Your task to perform on an android device: choose inbox layout in the gmail app Image 0: 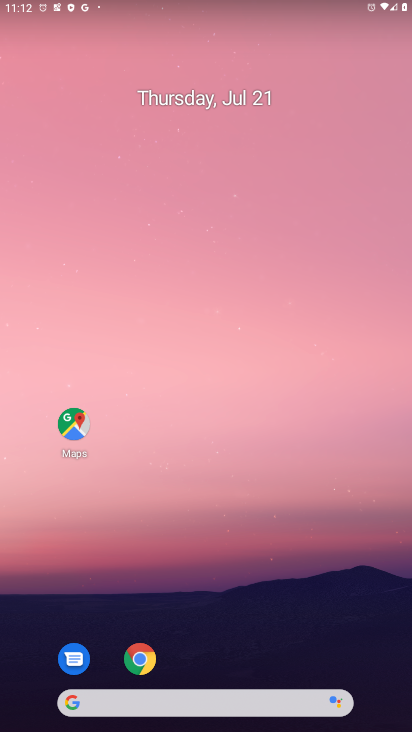
Step 0: drag from (177, 702) to (187, 161)
Your task to perform on an android device: choose inbox layout in the gmail app Image 1: 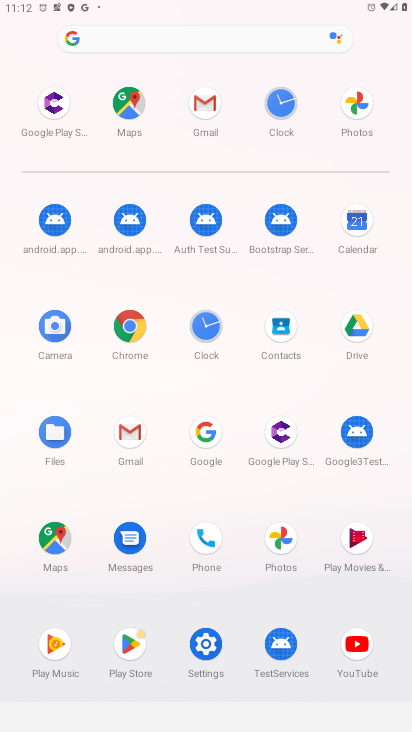
Step 1: click (204, 102)
Your task to perform on an android device: choose inbox layout in the gmail app Image 2: 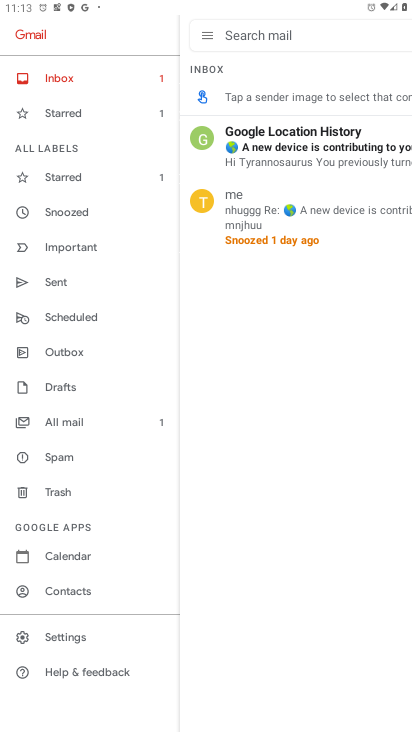
Step 2: click (72, 639)
Your task to perform on an android device: choose inbox layout in the gmail app Image 3: 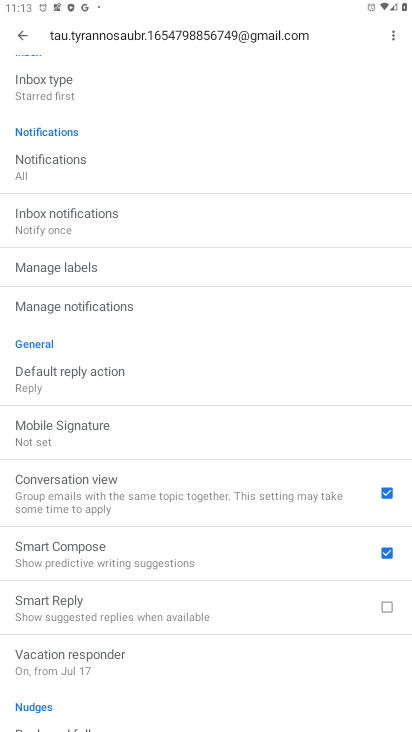
Step 3: click (54, 99)
Your task to perform on an android device: choose inbox layout in the gmail app Image 4: 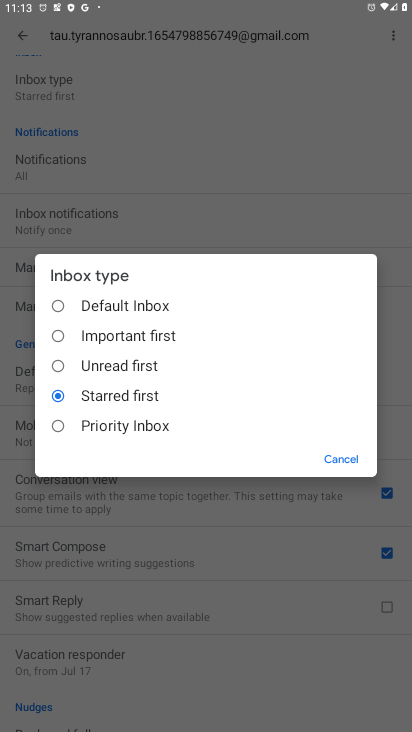
Step 4: click (101, 367)
Your task to perform on an android device: choose inbox layout in the gmail app Image 5: 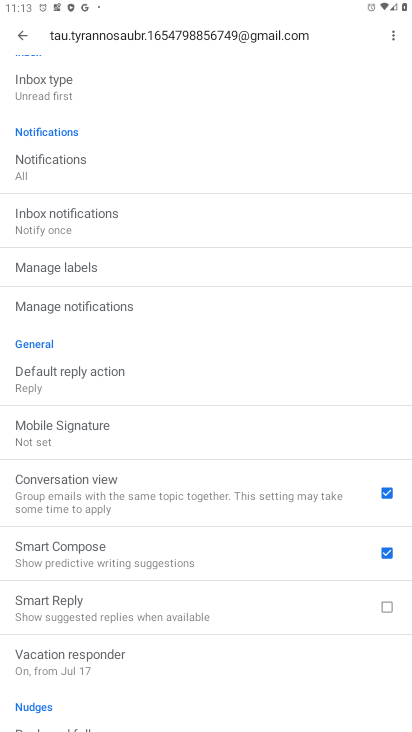
Step 5: task complete